Your task to perform on an android device: Search for vegetarian restaurants on Maps Image 0: 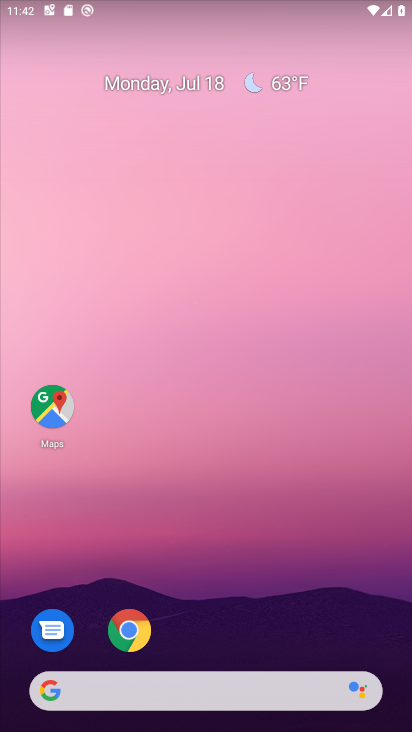
Step 0: drag from (201, 659) to (194, 161)
Your task to perform on an android device: Search for vegetarian restaurants on Maps Image 1: 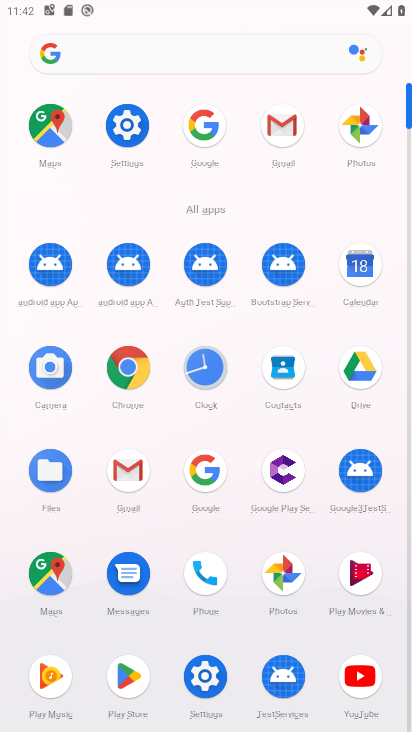
Step 1: click (50, 572)
Your task to perform on an android device: Search for vegetarian restaurants on Maps Image 2: 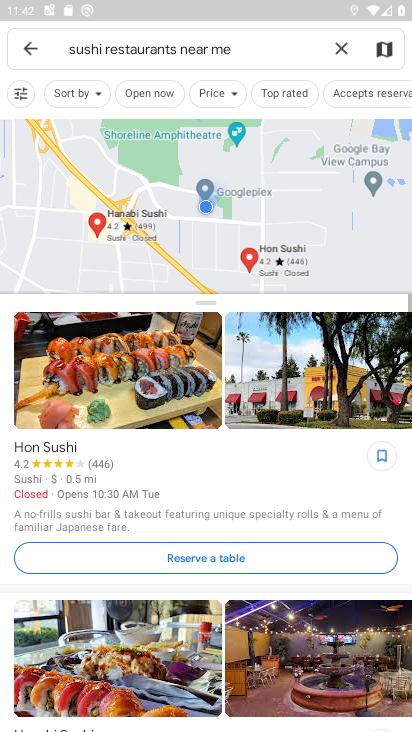
Step 2: click (346, 43)
Your task to perform on an android device: Search for vegetarian restaurants on Maps Image 3: 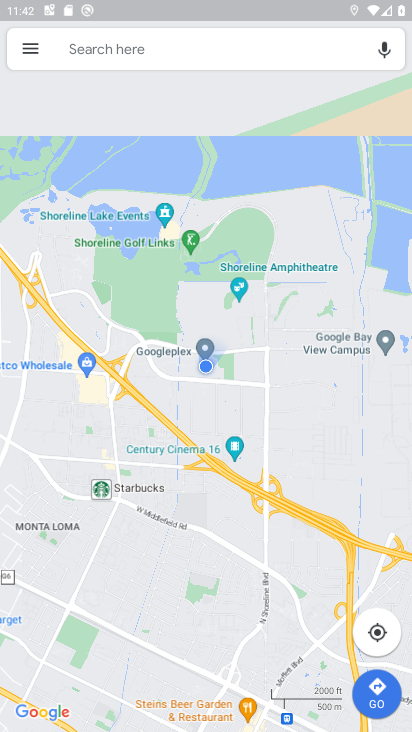
Step 3: click (162, 56)
Your task to perform on an android device: Search for vegetarian restaurants on Maps Image 4: 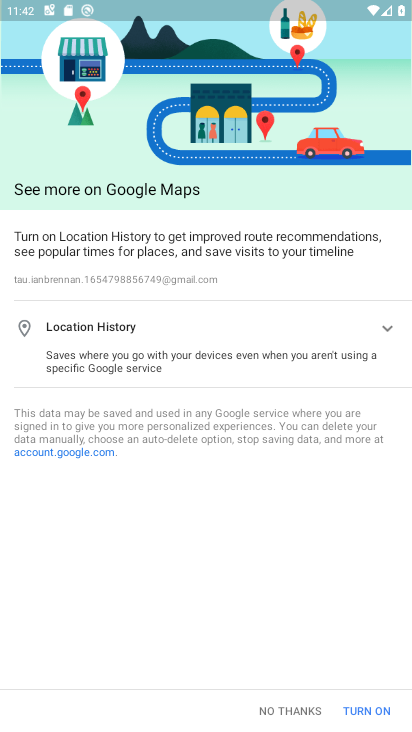
Step 4: press back button
Your task to perform on an android device: Search for vegetarian restaurants on Maps Image 5: 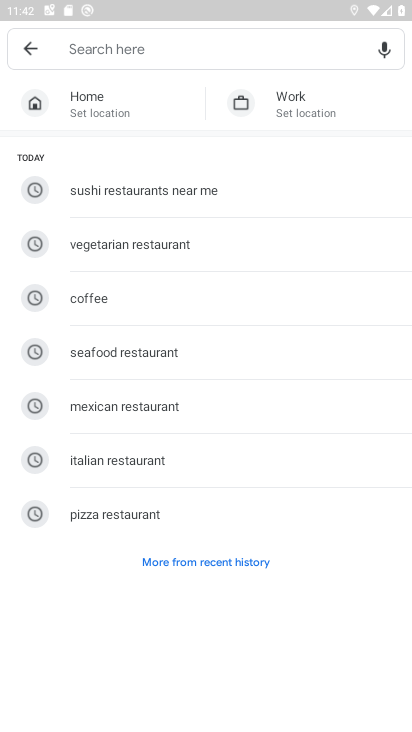
Step 5: click (150, 244)
Your task to perform on an android device: Search for vegetarian restaurants on Maps Image 6: 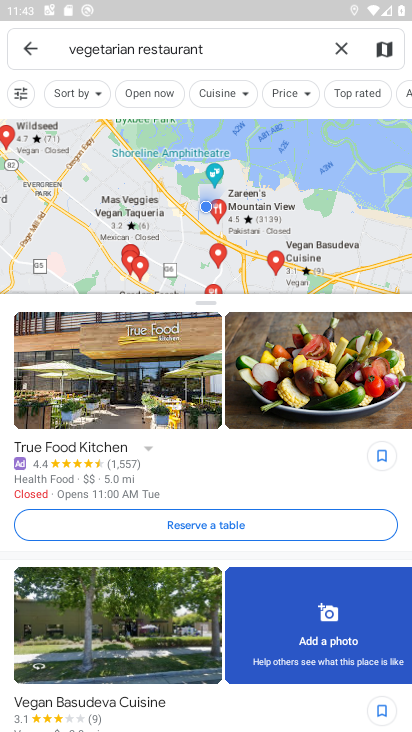
Step 6: task complete